Your task to perform on an android device: Is it going to rain this weekend? Image 0: 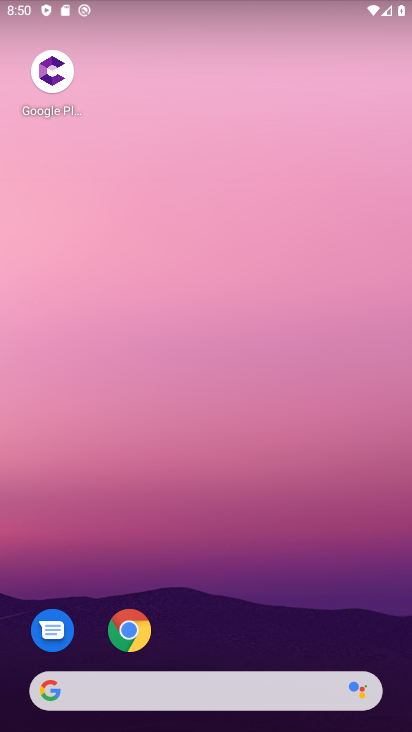
Step 0: drag from (223, 523) to (287, 9)
Your task to perform on an android device: Is it going to rain this weekend? Image 1: 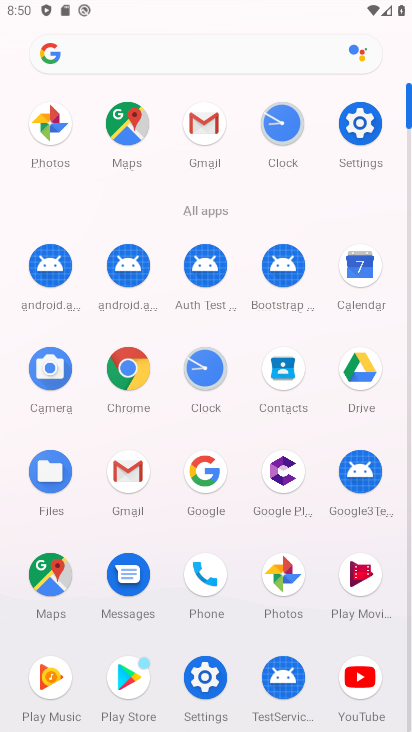
Step 1: click (126, 363)
Your task to perform on an android device: Is it going to rain this weekend? Image 2: 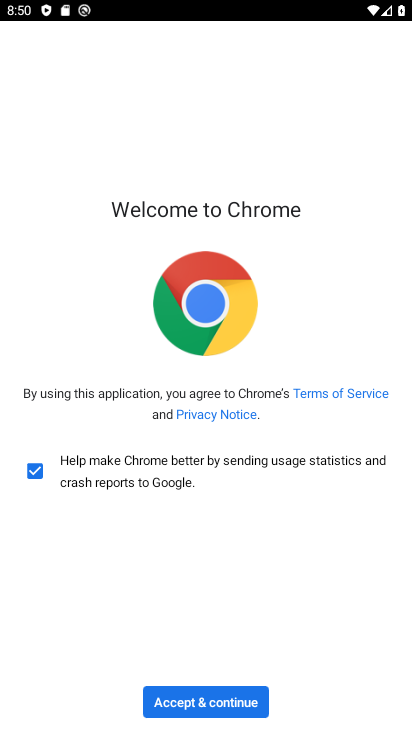
Step 2: click (231, 699)
Your task to perform on an android device: Is it going to rain this weekend? Image 3: 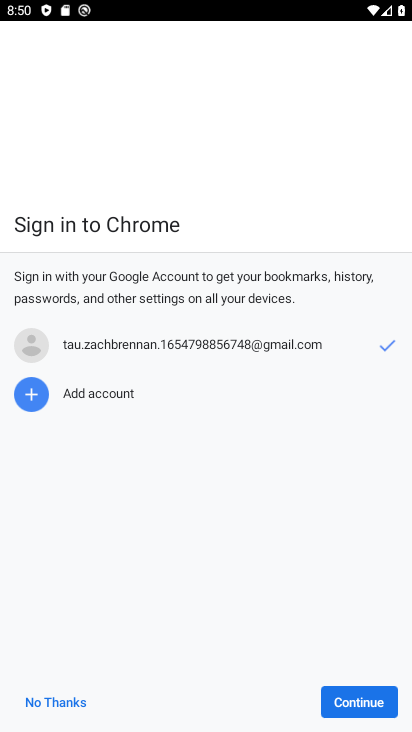
Step 3: click (344, 695)
Your task to perform on an android device: Is it going to rain this weekend? Image 4: 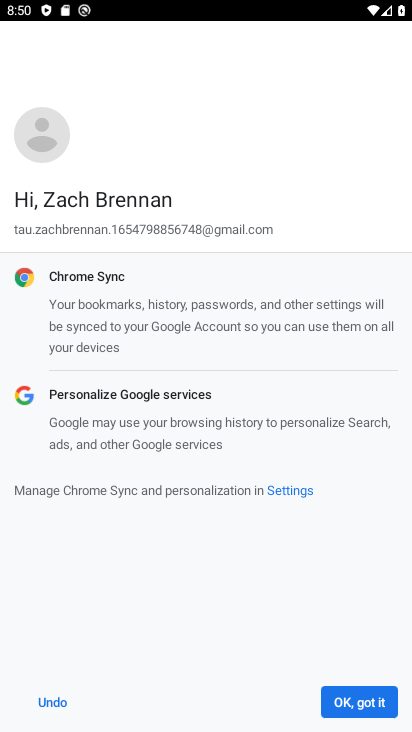
Step 4: click (371, 705)
Your task to perform on an android device: Is it going to rain this weekend? Image 5: 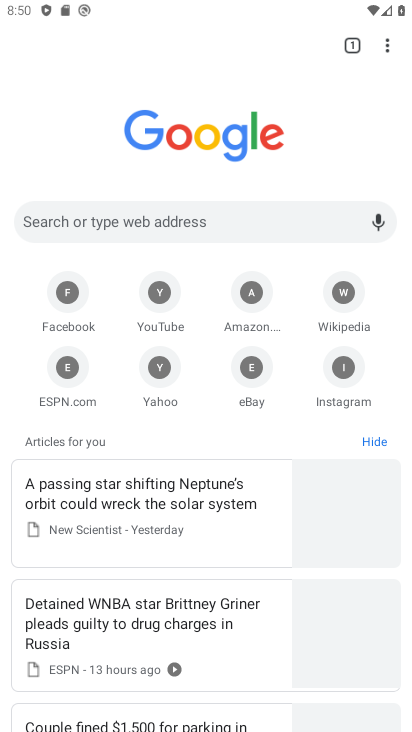
Step 5: click (197, 222)
Your task to perform on an android device: Is it going to rain this weekend? Image 6: 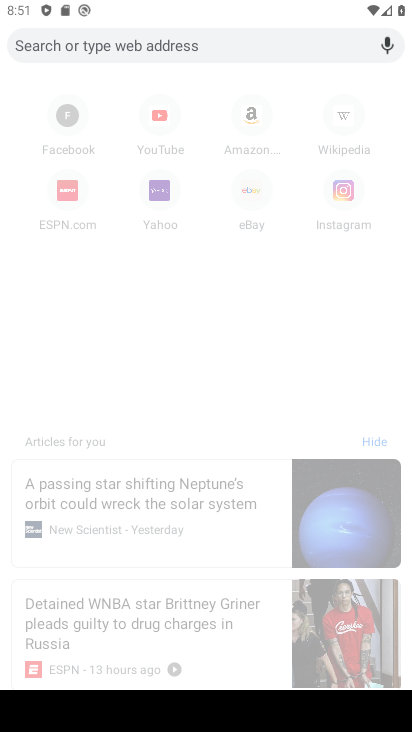
Step 6: type "is it going to rain this weelend?"
Your task to perform on an android device: Is it going to rain this weekend? Image 7: 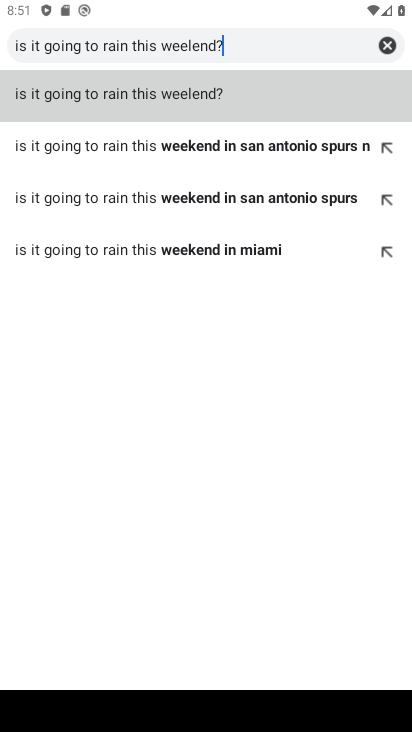
Step 7: click (196, 91)
Your task to perform on an android device: Is it going to rain this weekend? Image 8: 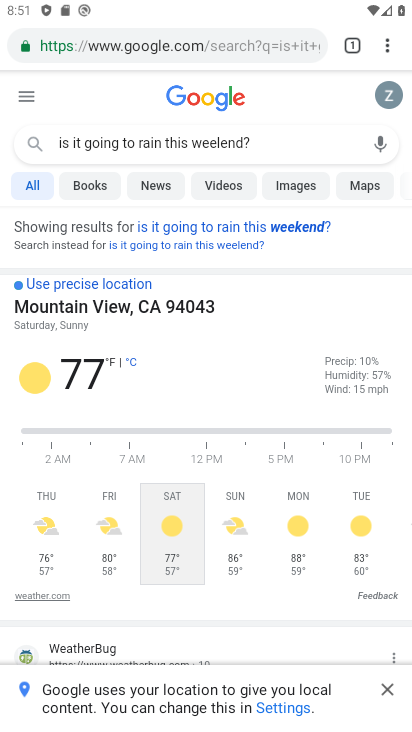
Step 8: task complete